Your task to perform on an android device: turn notification dots on Image 0: 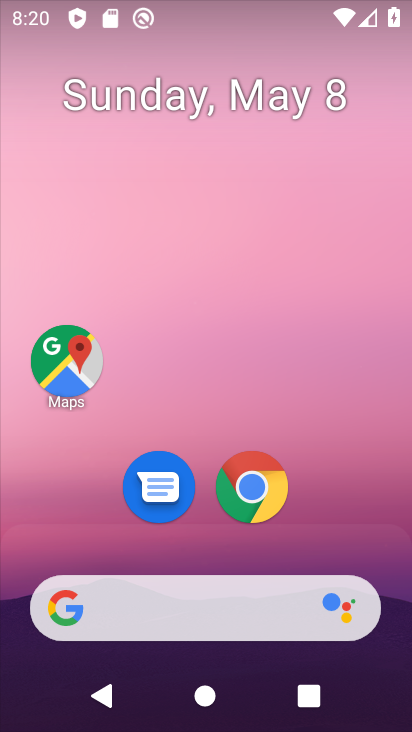
Step 0: drag from (233, 551) to (224, 121)
Your task to perform on an android device: turn notification dots on Image 1: 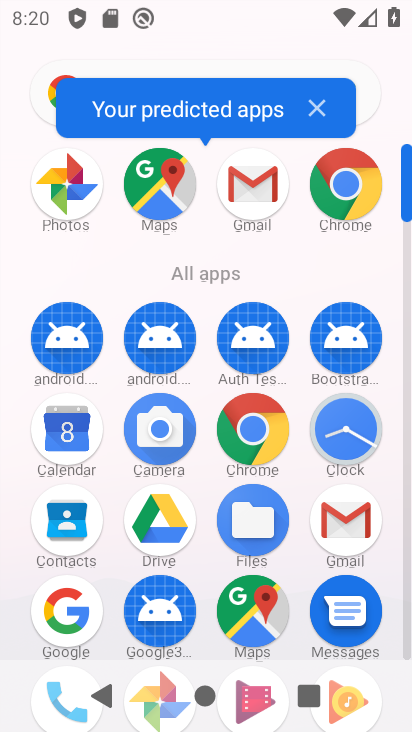
Step 1: drag from (110, 597) to (179, 216)
Your task to perform on an android device: turn notification dots on Image 2: 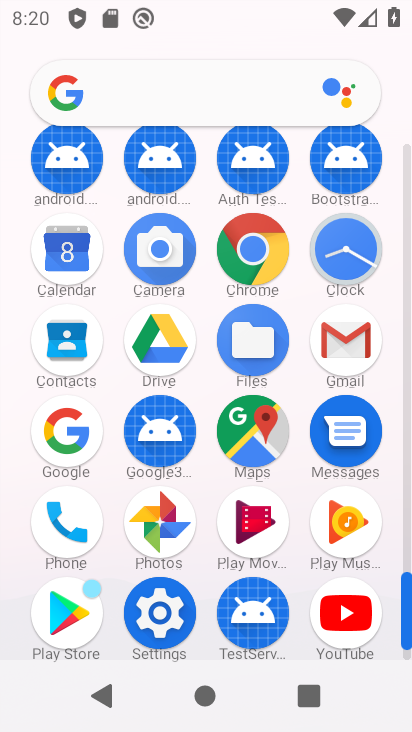
Step 2: click (163, 599)
Your task to perform on an android device: turn notification dots on Image 3: 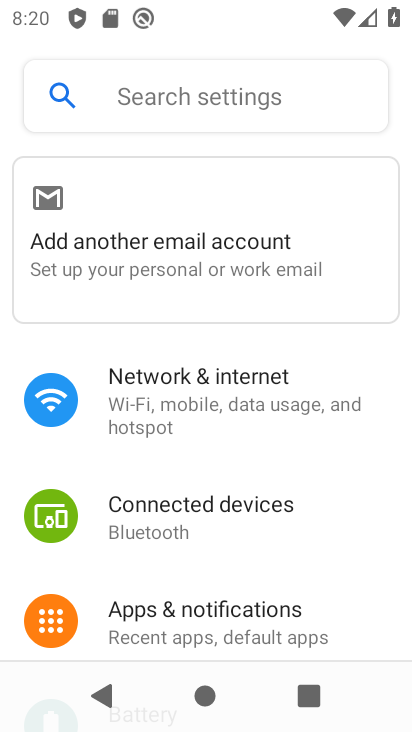
Step 3: click (206, 604)
Your task to perform on an android device: turn notification dots on Image 4: 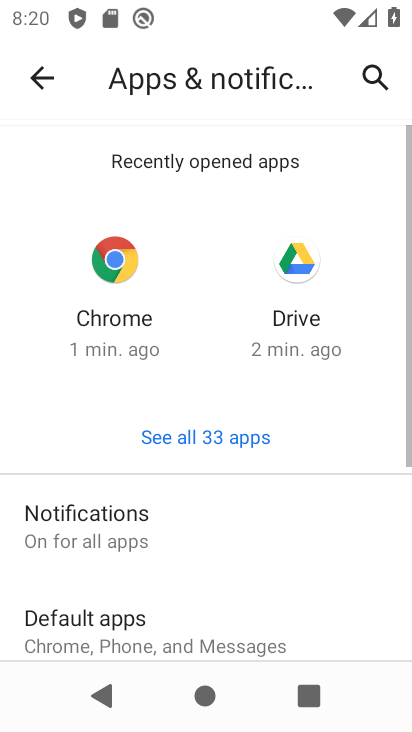
Step 4: click (143, 539)
Your task to perform on an android device: turn notification dots on Image 5: 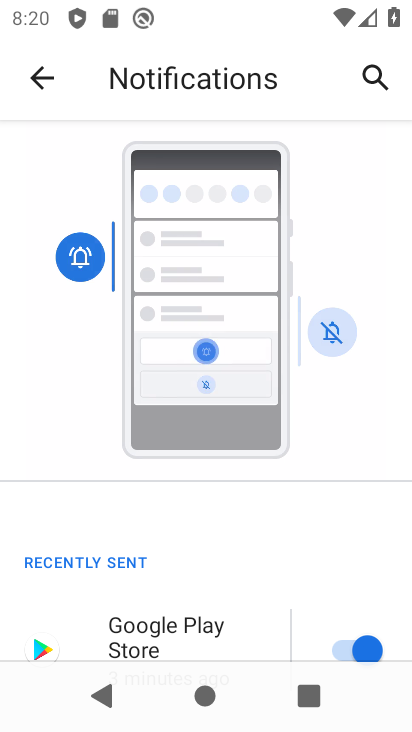
Step 5: drag from (191, 600) to (233, 166)
Your task to perform on an android device: turn notification dots on Image 6: 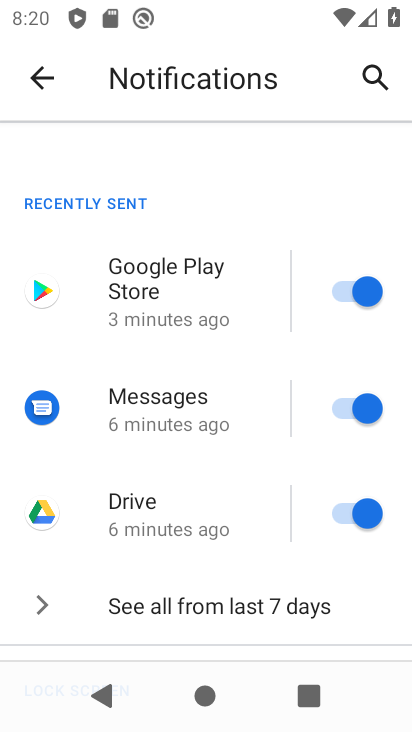
Step 6: drag from (192, 571) to (210, 146)
Your task to perform on an android device: turn notification dots on Image 7: 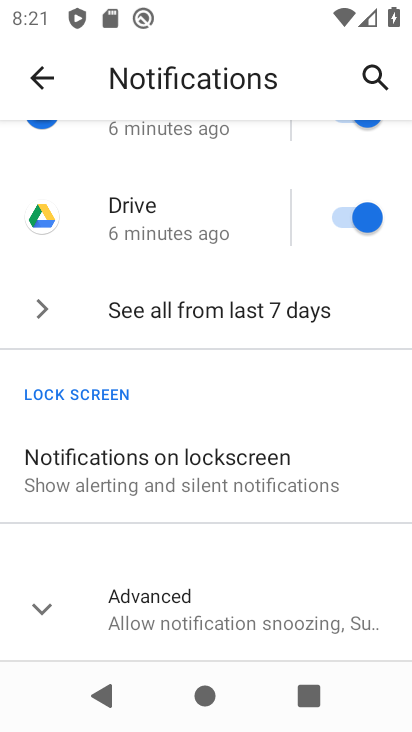
Step 7: click (229, 594)
Your task to perform on an android device: turn notification dots on Image 8: 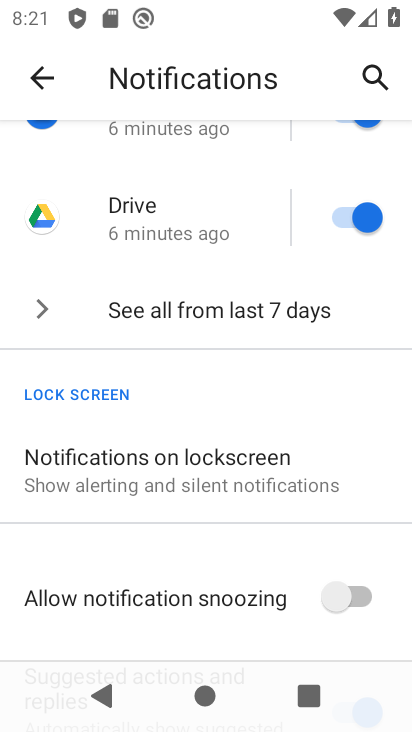
Step 8: task complete